Your task to perform on an android device: Open Wikipedia Image 0: 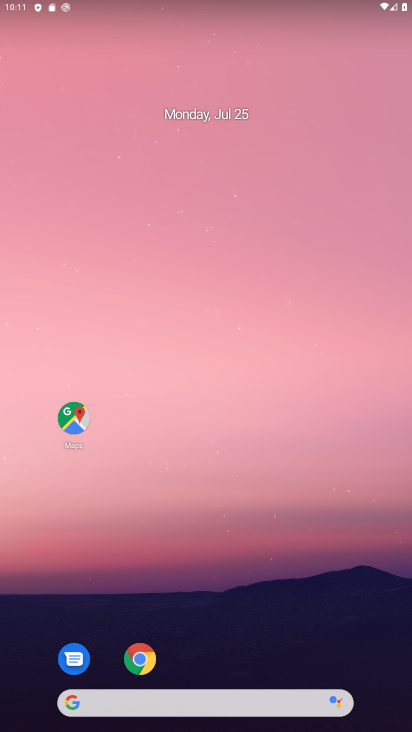
Step 0: drag from (215, 684) to (191, 59)
Your task to perform on an android device: Open Wikipedia Image 1: 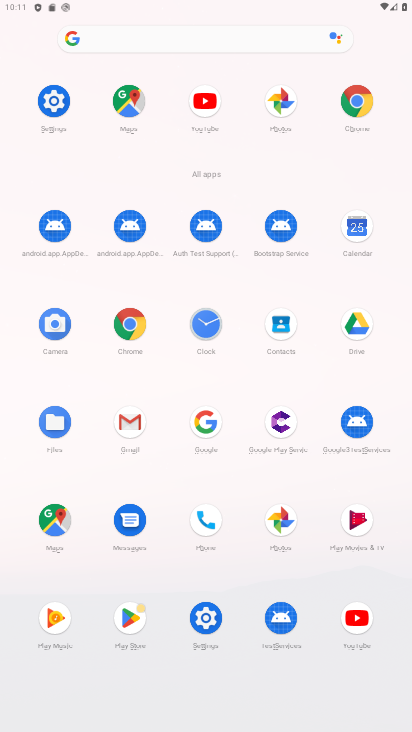
Step 1: click (127, 326)
Your task to perform on an android device: Open Wikipedia Image 2: 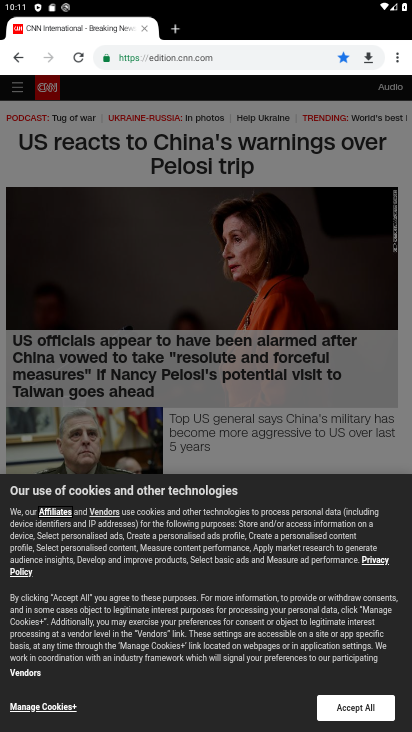
Step 2: press home button
Your task to perform on an android device: Open Wikipedia Image 3: 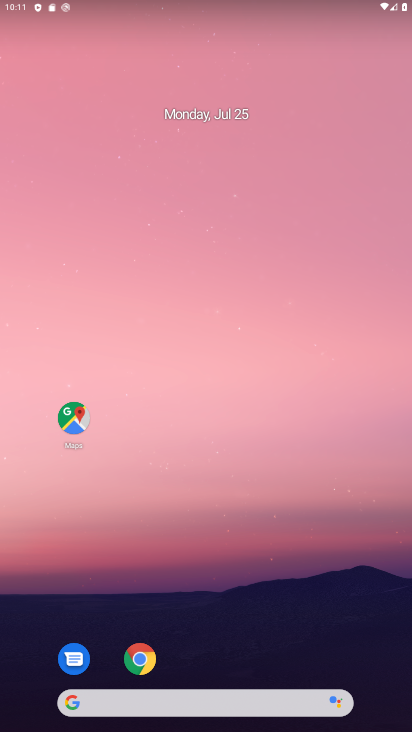
Step 3: click (119, 659)
Your task to perform on an android device: Open Wikipedia Image 4: 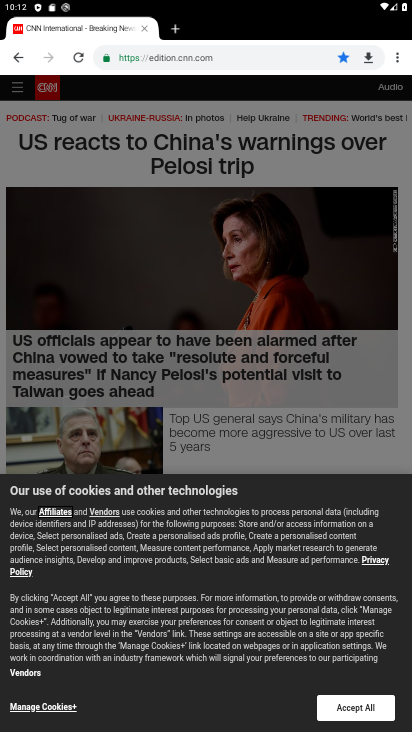
Step 4: click (175, 31)
Your task to perform on an android device: Open Wikipedia Image 5: 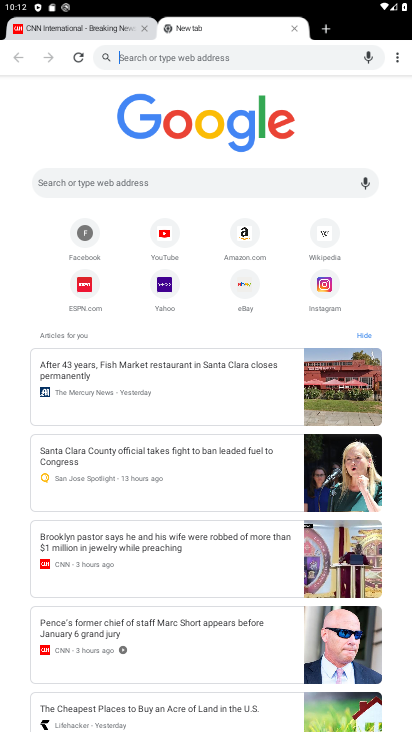
Step 5: click (321, 232)
Your task to perform on an android device: Open Wikipedia Image 6: 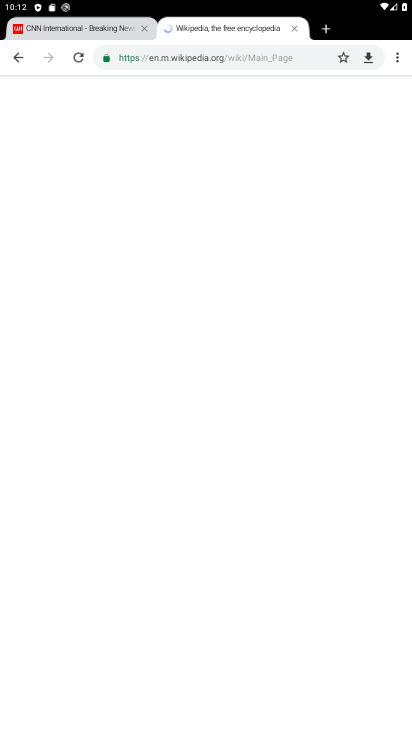
Step 6: task complete